Your task to perform on an android device: Go to location settings Image 0: 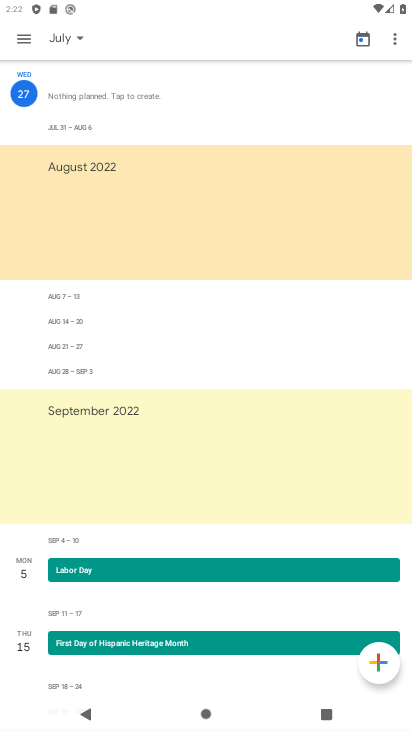
Step 0: press home button
Your task to perform on an android device: Go to location settings Image 1: 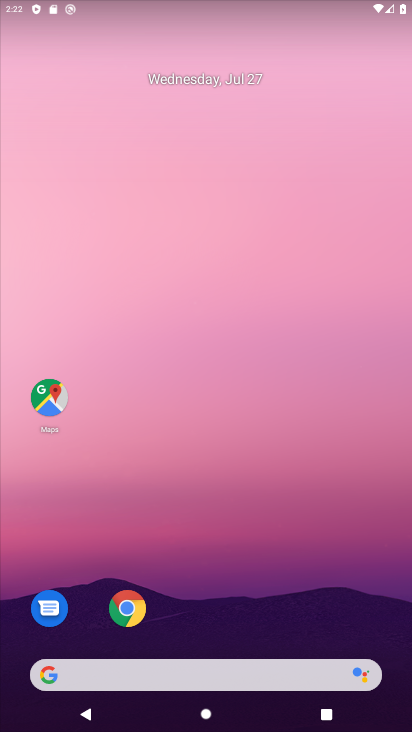
Step 1: drag from (241, 546) to (232, 172)
Your task to perform on an android device: Go to location settings Image 2: 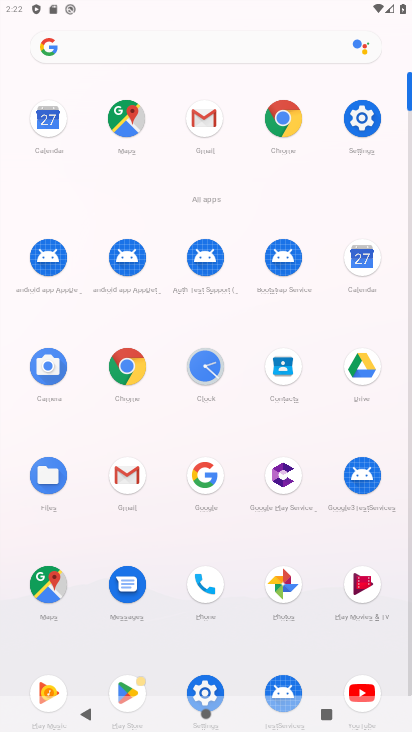
Step 2: click (373, 119)
Your task to perform on an android device: Go to location settings Image 3: 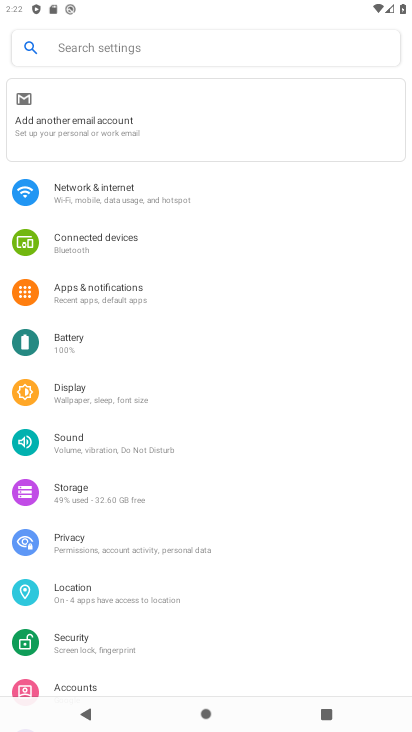
Step 3: click (74, 586)
Your task to perform on an android device: Go to location settings Image 4: 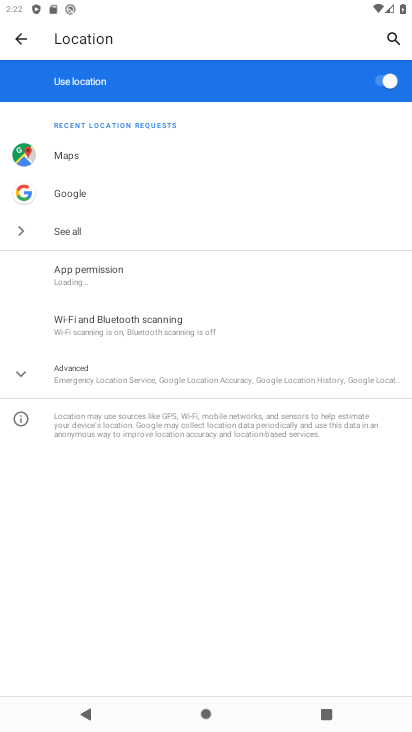
Step 4: task complete